Your task to perform on an android device: turn on notifications settings in the gmail app Image 0: 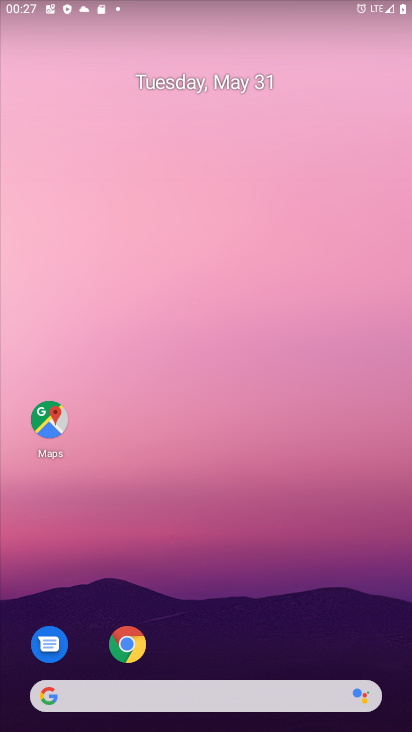
Step 0: drag from (376, 650) to (311, 122)
Your task to perform on an android device: turn on notifications settings in the gmail app Image 1: 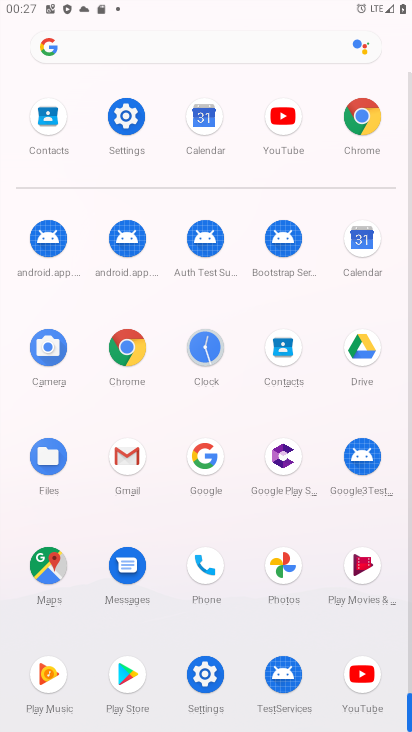
Step 1: click (127, 456)
Your task to perform on an android device: turn on notifications settings in the gmail app Image 2: 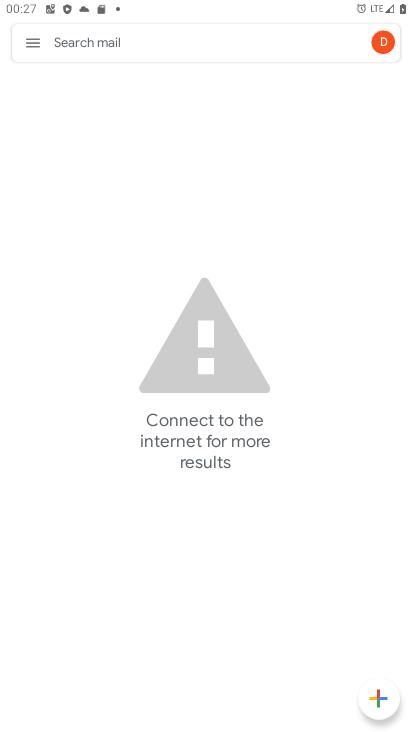
Step 2: click (32, 44)
Your task to perform on an android device: turn on notifications settings in the gmail app Image 3: 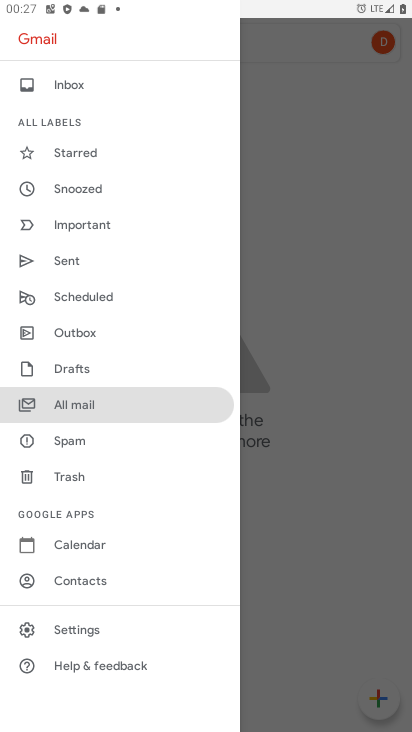
Step 3: click (79, 639)
Your task to perform on an android device: turn on notifications settings in the gmail app Image 4: 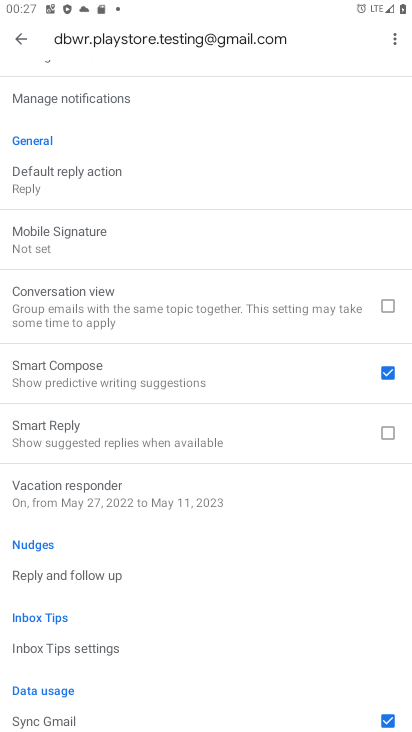
Step 4: drag from (183, 211) to (194, 416)
Your task to perform on an android device: turn on notifications settings in the gmail app Image 5: 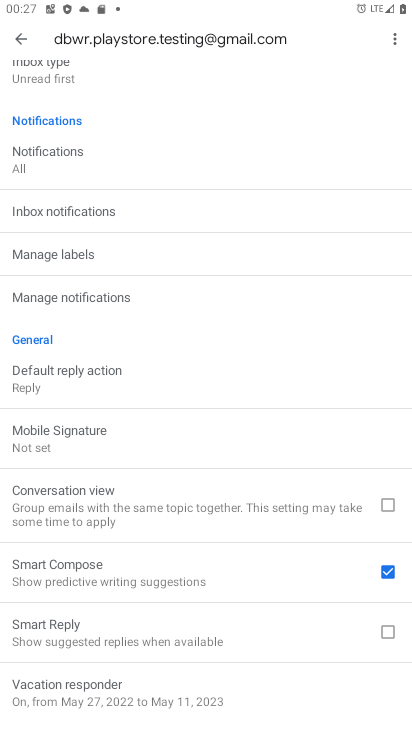
Step 5: click (48, 288)
Your task to perform on an android device: turn on notifications settings in the gmail app Image 6: 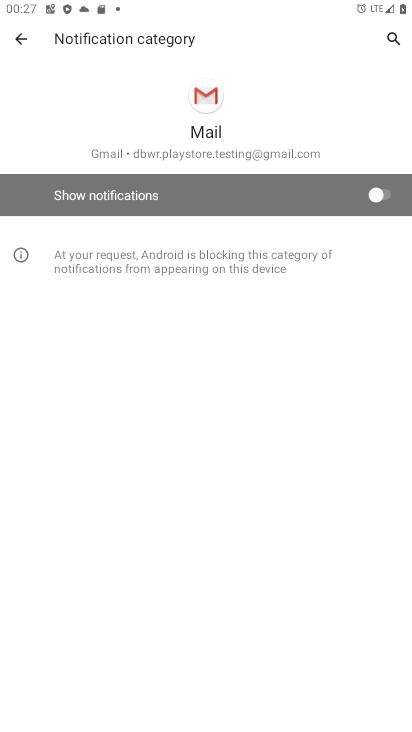
Step 6: click (387, 195)
Your task to perform on an android device: turn on notifications settings in the gmail app Image 7: 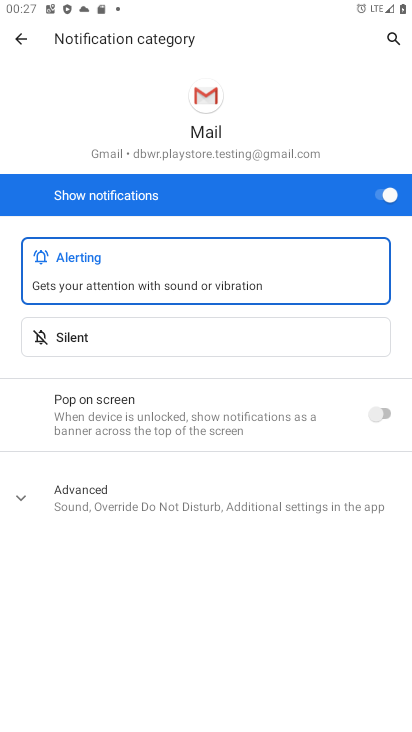
Step 7: task complete